Your task to perform on an android device: Open a new Chrome private window Image 0: 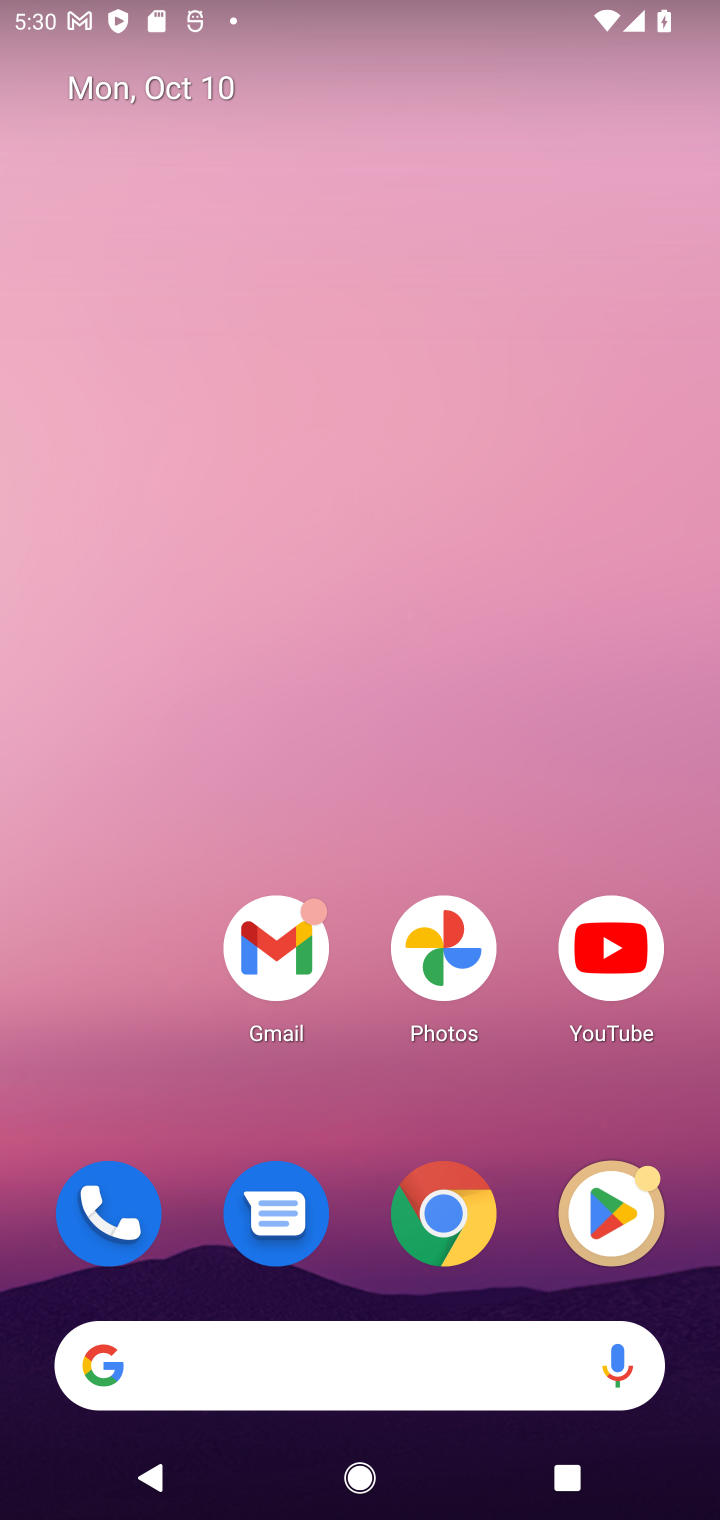
Step 0: click (451, 1232)
Your task to perform on an android device: Open a new Chrome private window Image 1: 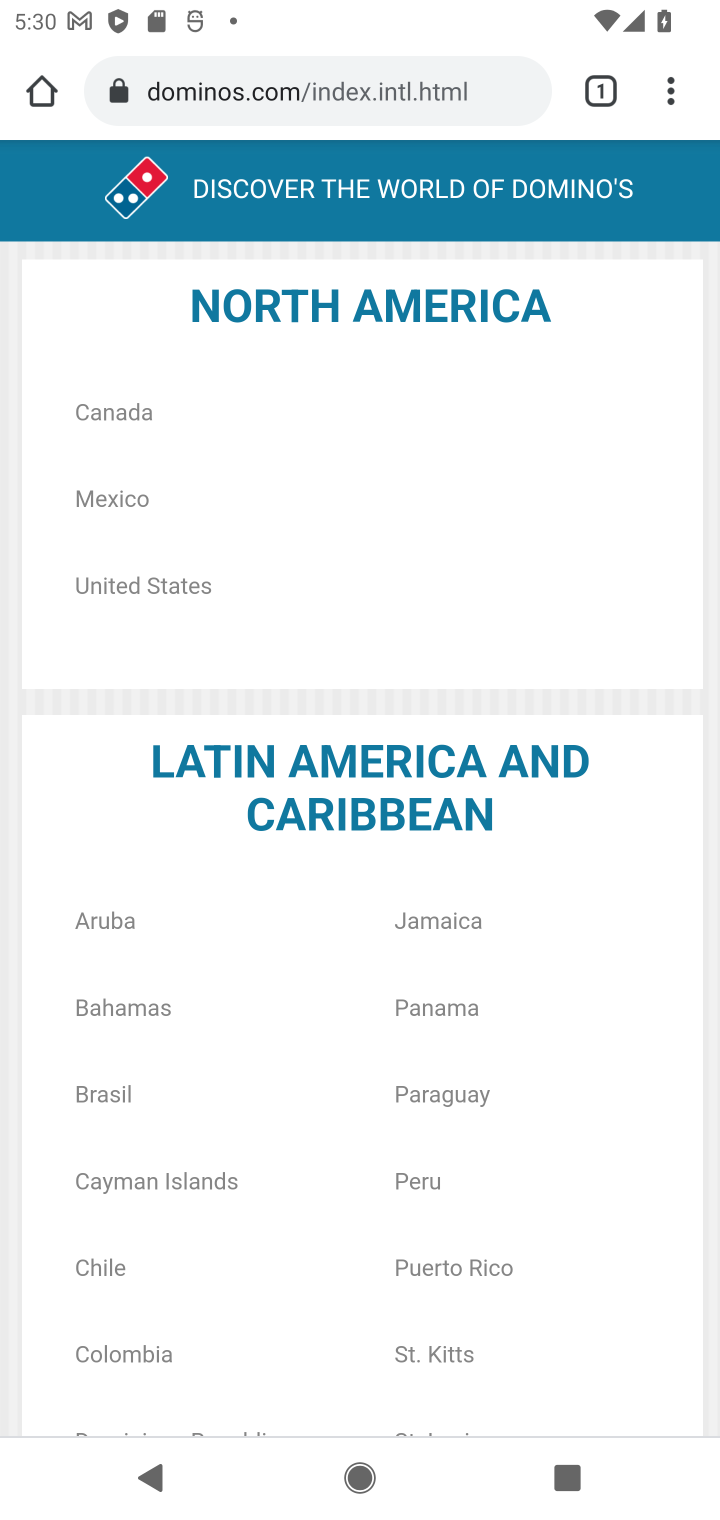
Step 1: click (666, 68)
Your task to perform on an android device: Open a new Chrome private window Image 2: 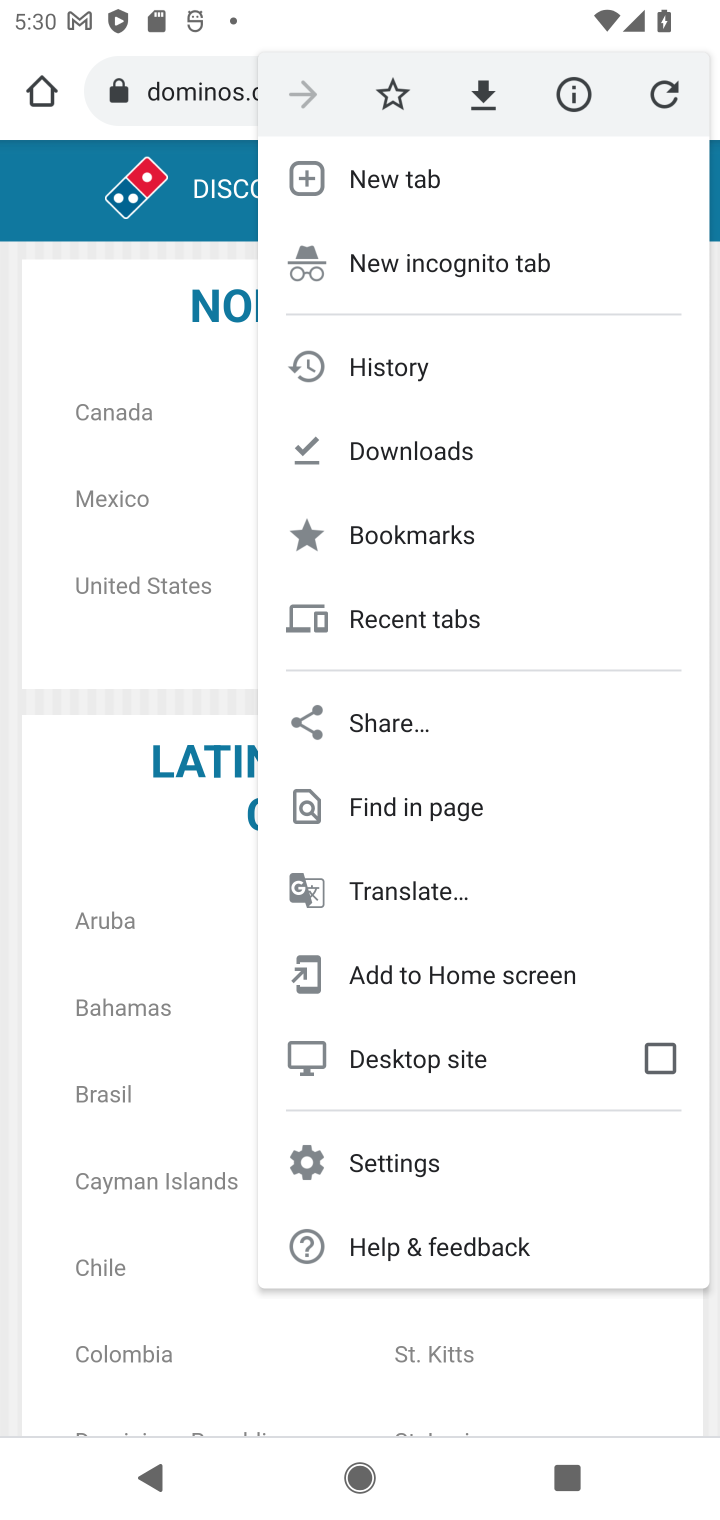
Step 2: click (413, 260)
Your task to perform on an android device: Open a new Chrome private window Image 3: 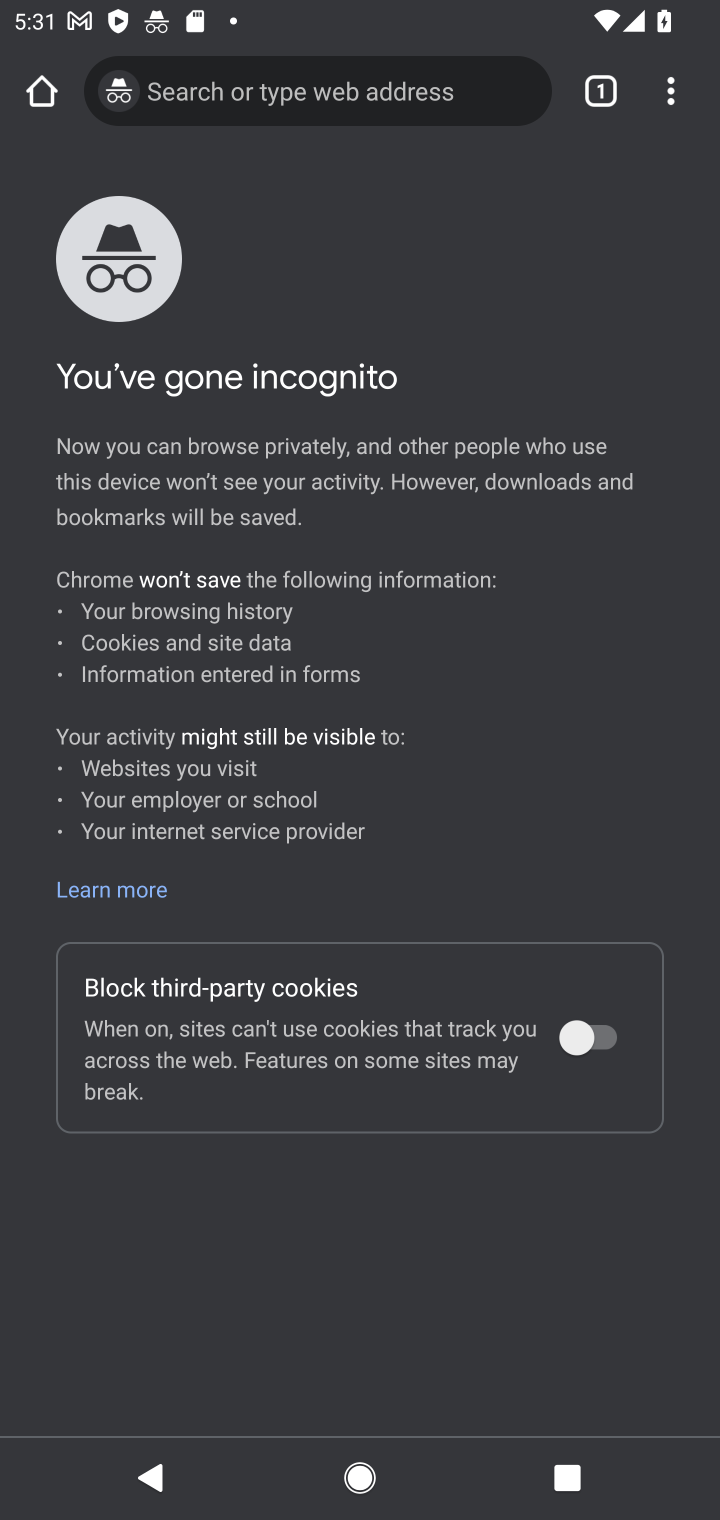
Step 3: task complete